Your task to perform on an android device: open device folders in google photos Image 0: 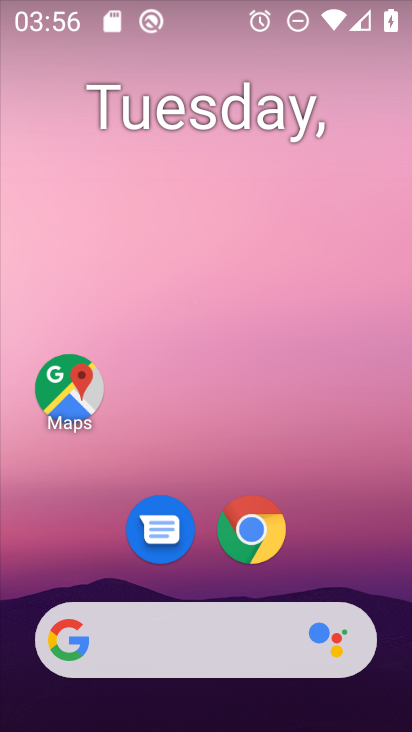
Step 0: drag from (346, 547) to (320, 243)
Your task to perform on an android device: open device folders in google photos Image 1: 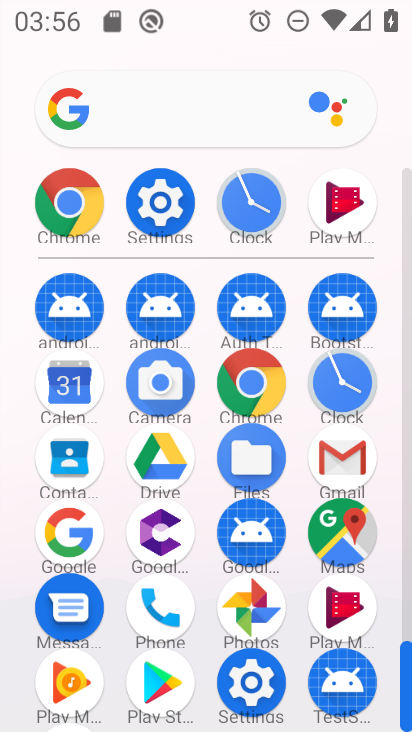
Step 1: click (247, 599)
Your task to perform on an android device: open device folders in google photos Image 2: 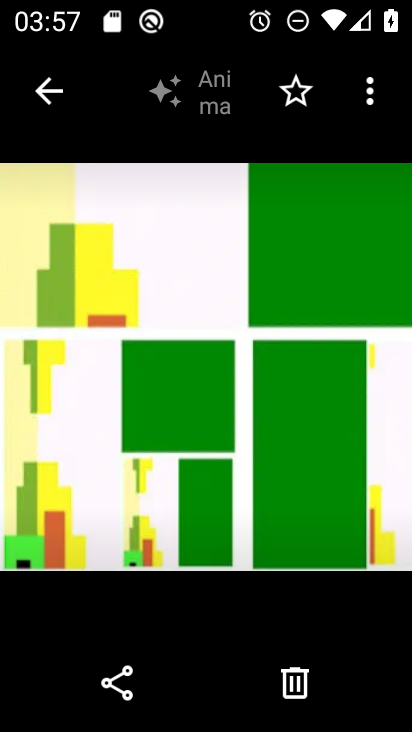
Step 2: task complete